Your task to perform on an android device: remove spam from my inbox in the gmail app Image 0: 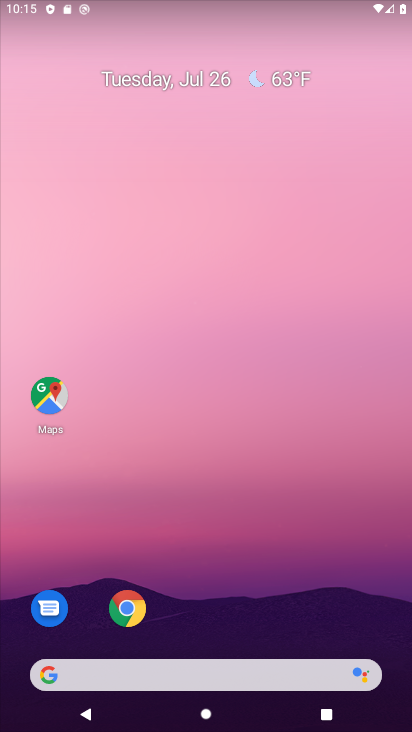
Step 0: press home button
Your task to perform on an android device: remove spam from my inbox in the gmail app Image 1: 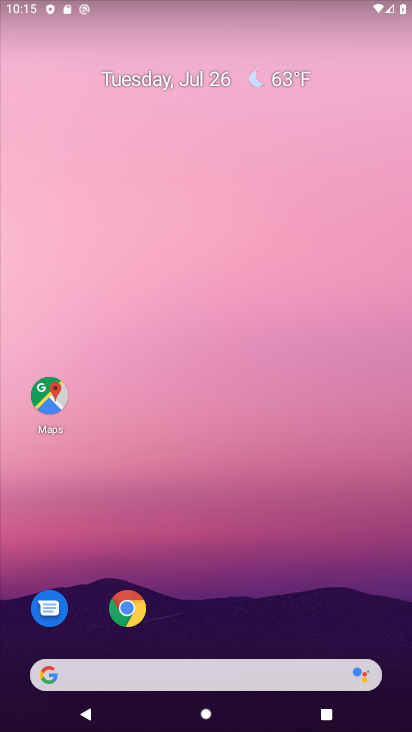
Step 1: drag from (233, 606) to (232, 91)
Your task to perform on an android device: remove spam from my inbox in the gmail app Image 2: 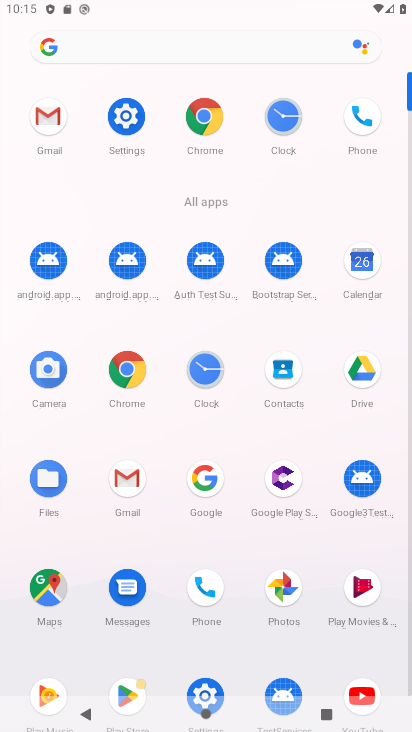
Step 2: click (51, 123)
Your task to perform on an android device: remove spam from my inbox in the gmail app Image 3: 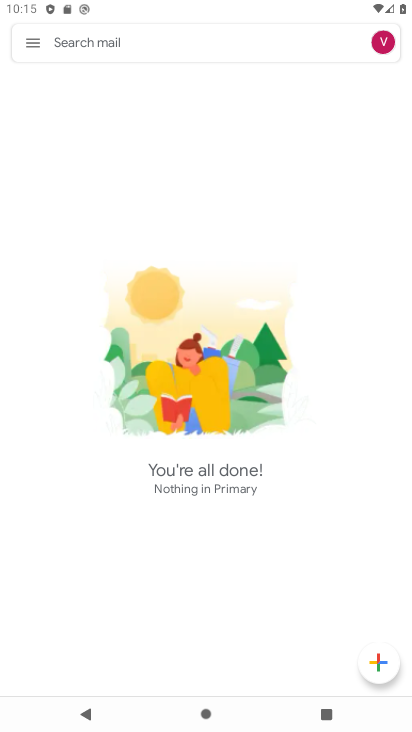
Step 3: task complete